Your task to perform on an android device: show emergency info Image 0: 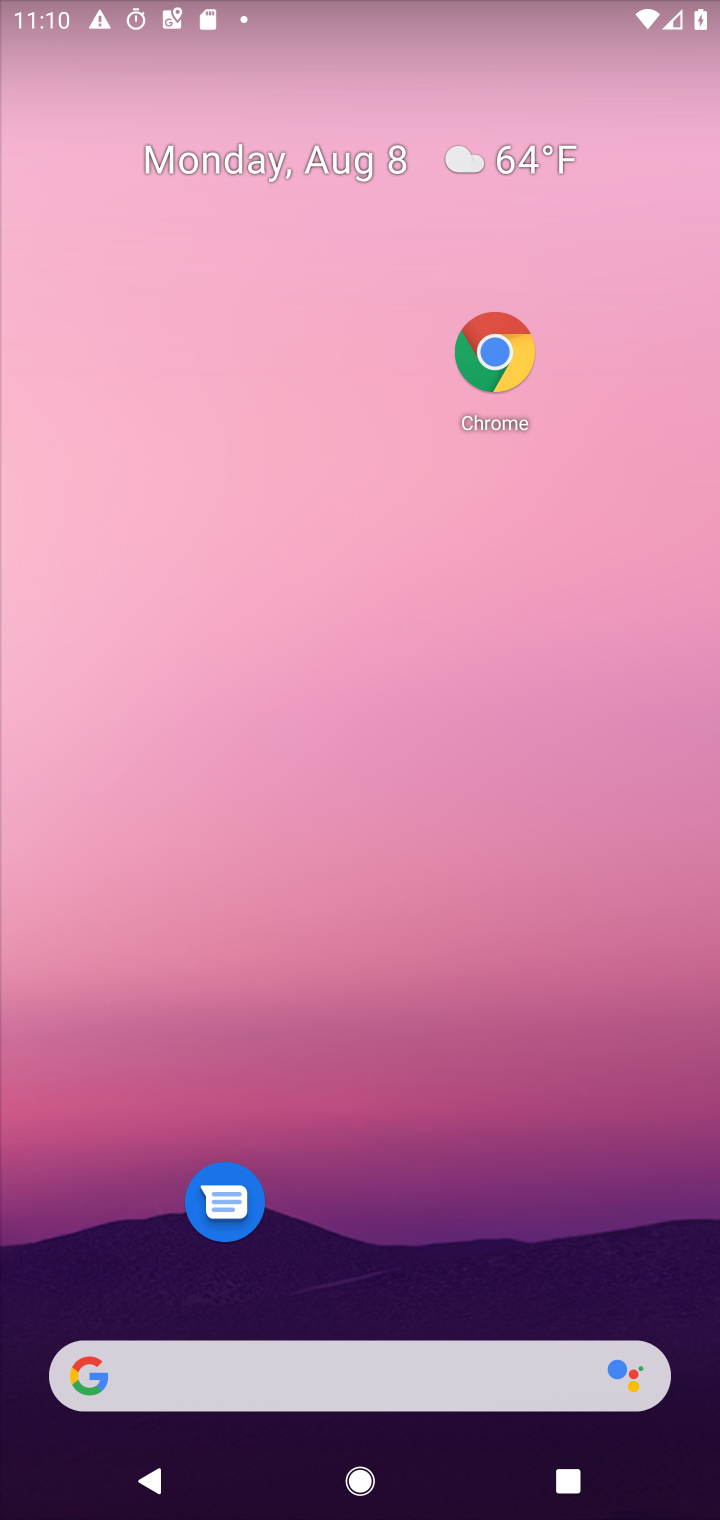
Step 0: drag from (264, 719) to (455, 0)
Your task to perform on an android device: show emergency info Image 1: 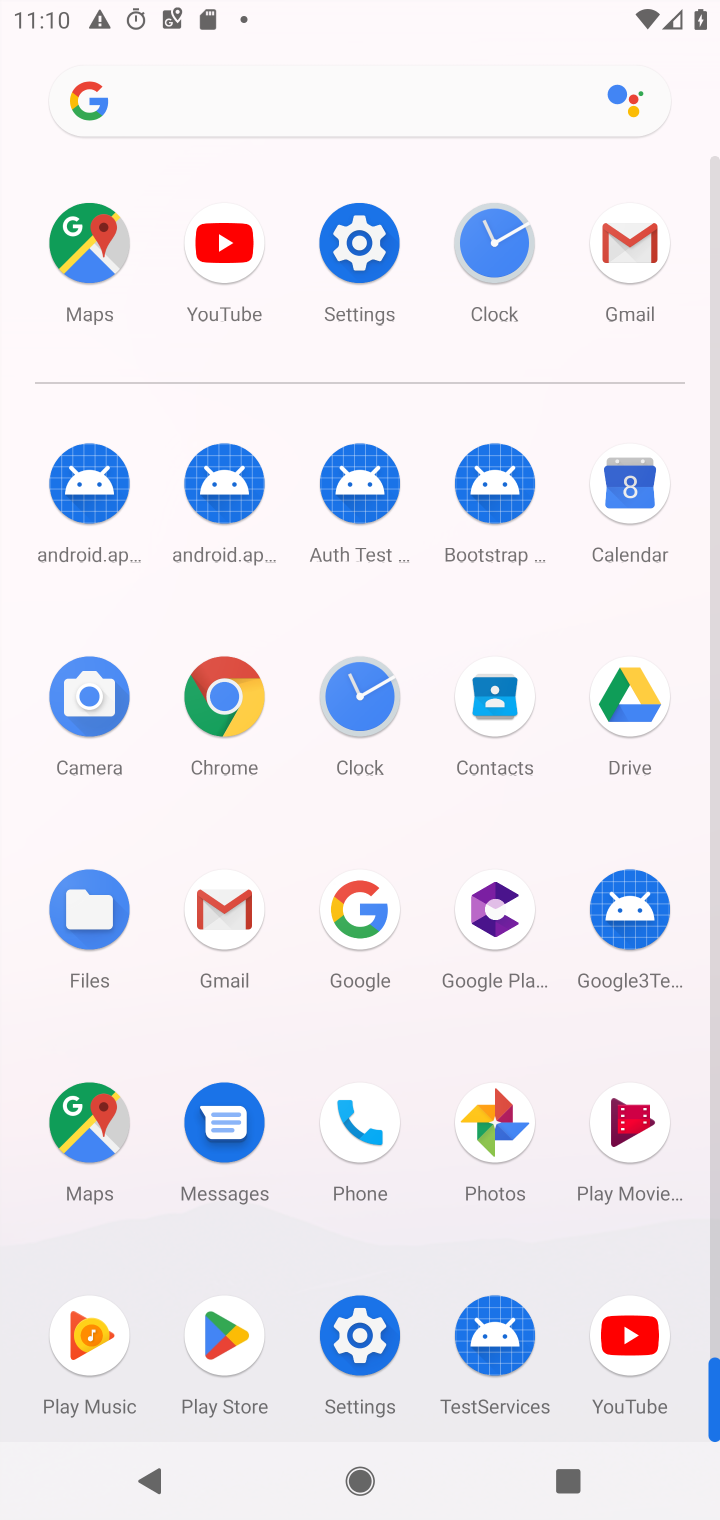
Step 1: click (390, 281)
Your task to perform on an android device: show emergency info Image 2: 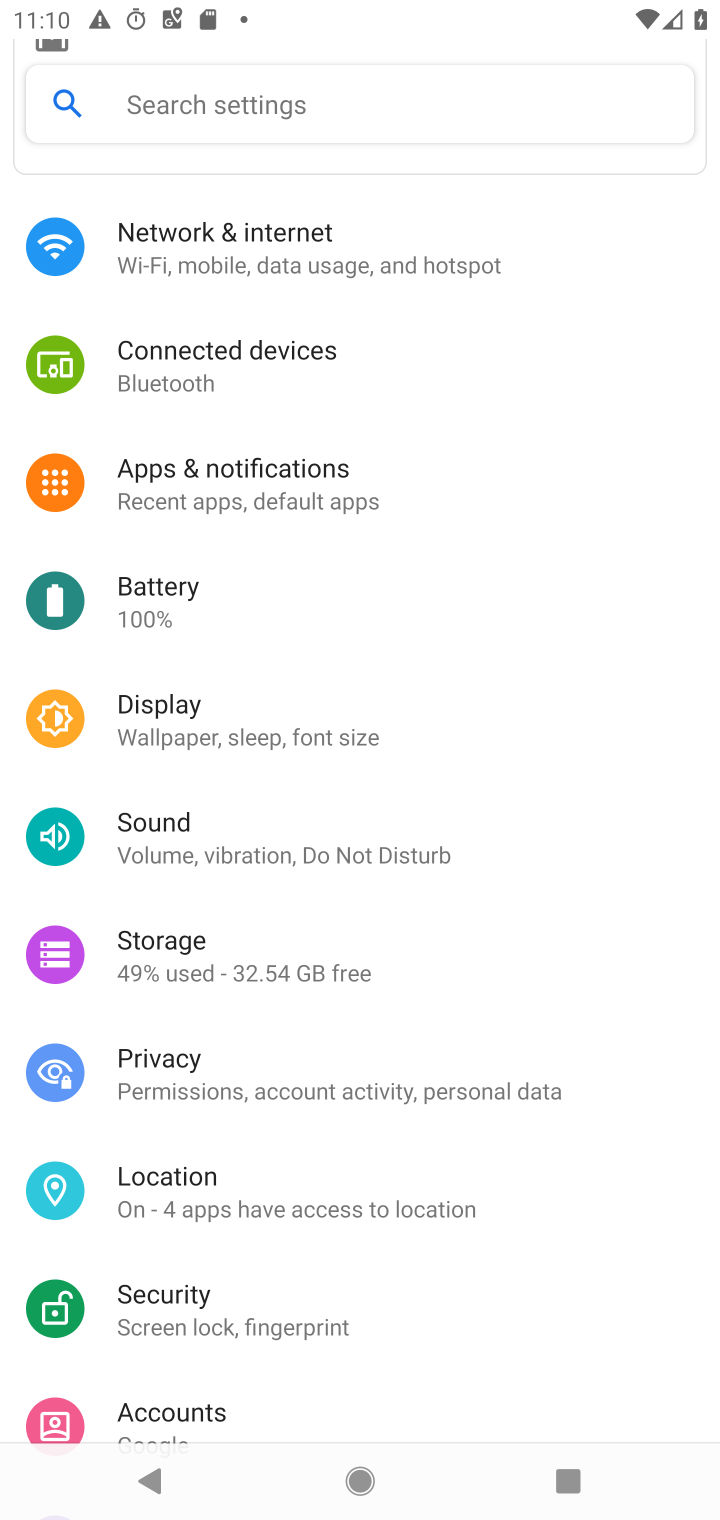
Step 2: drag from (370, 497) to (29, 20)
Your task to perform on an android device: show emergency info Image 3: 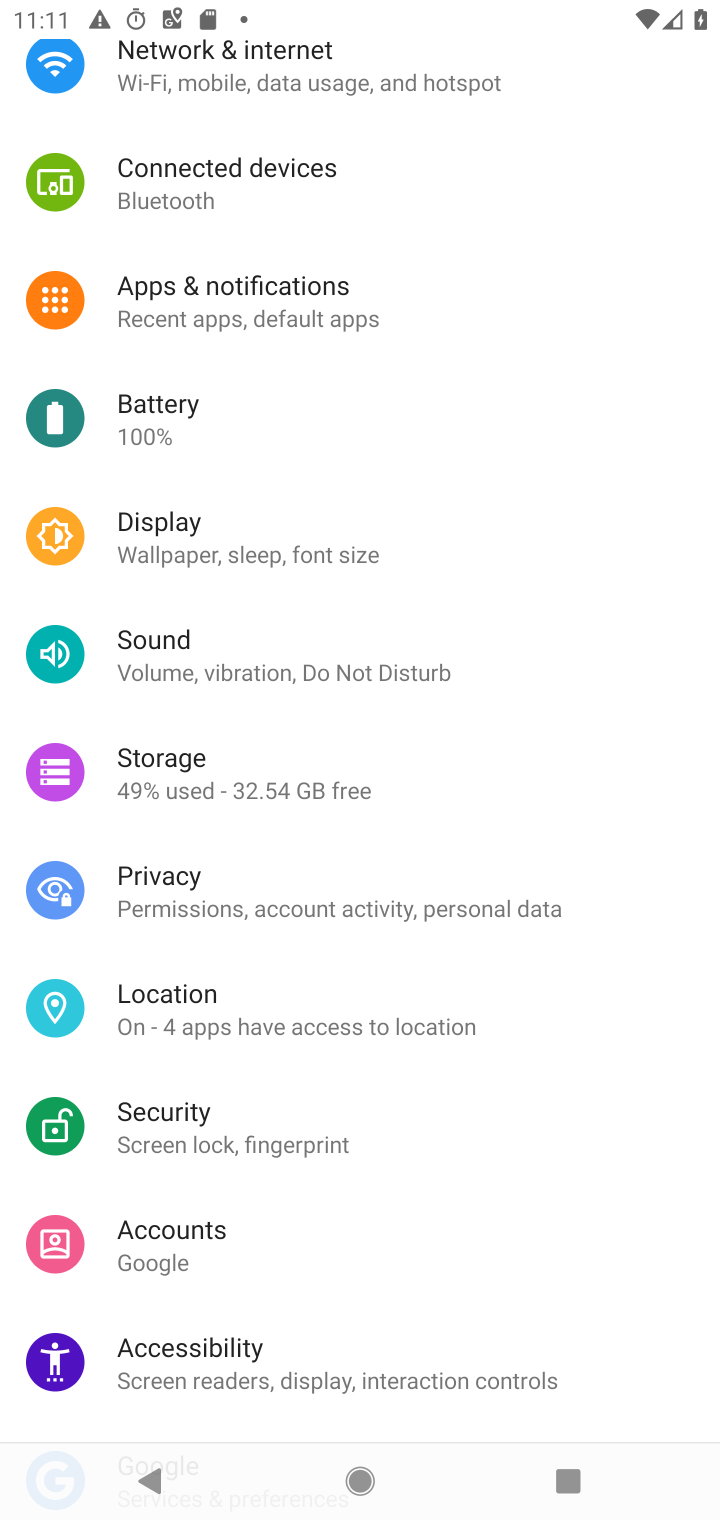
Step 3: drag from (367, 1090) to (185, 81)
Your task to perform on an android device: show emergency info Image 4: 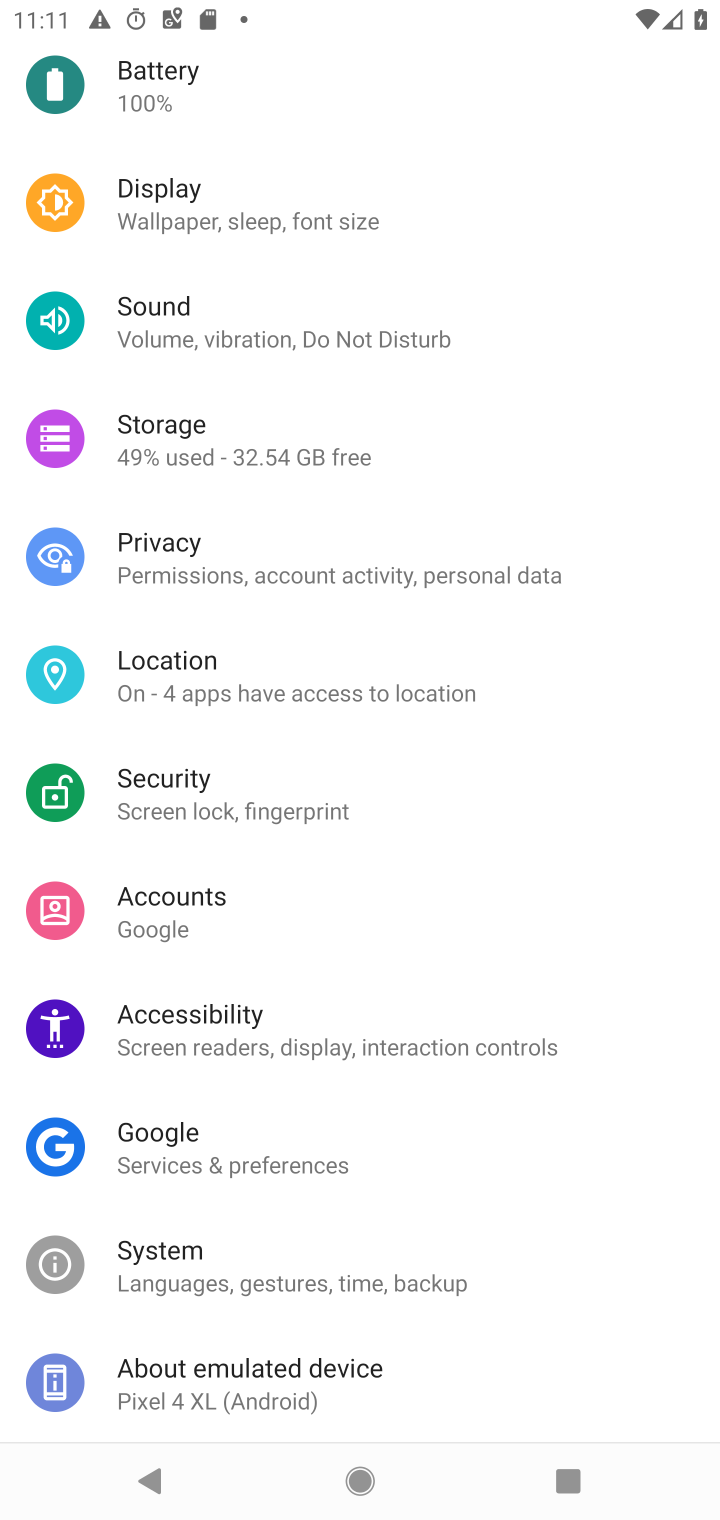
Step 4: drag from (308, 1104) to (217, 151)
Your task to perform on an android device: show emergency info Image 5: 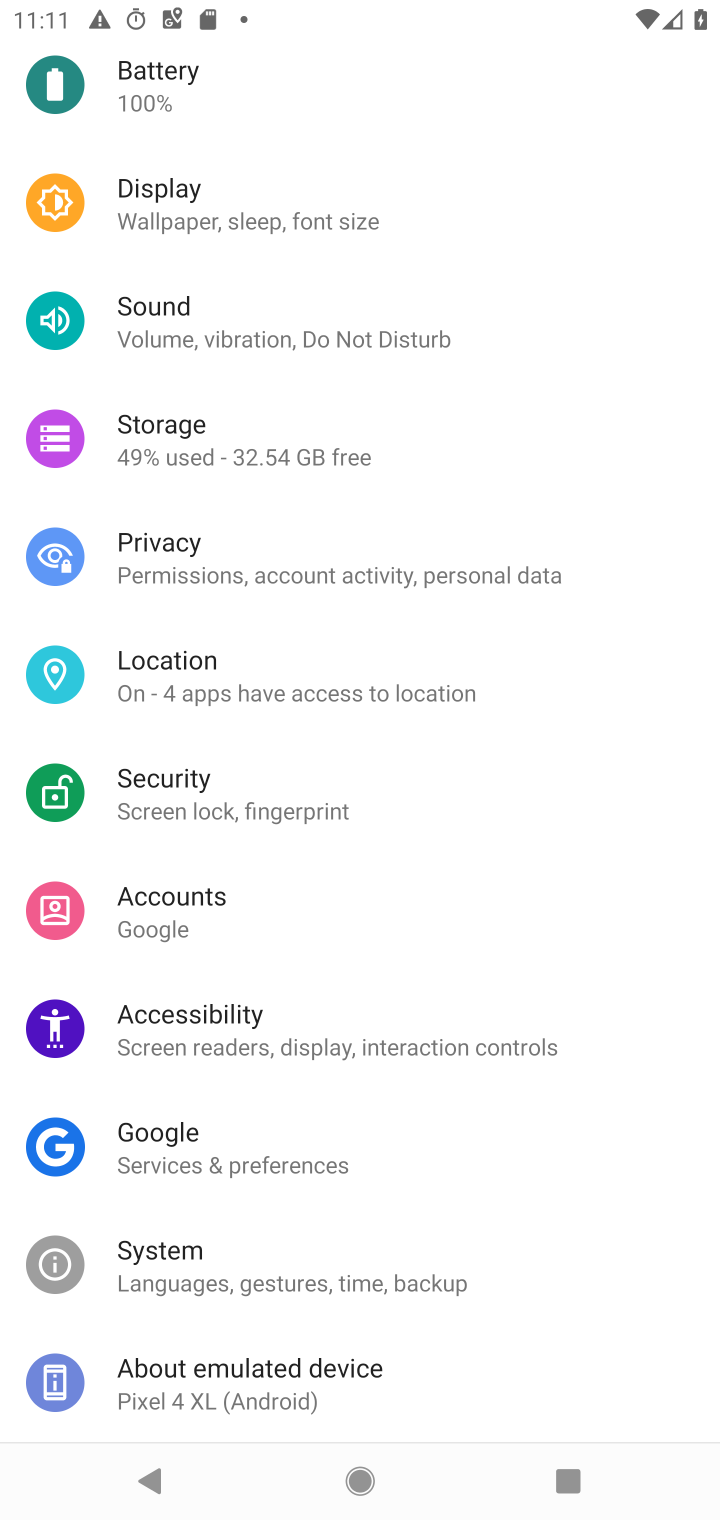
Step 5: click (304, 1352)
Your task to perform on an android device: show emergency info Image 6: 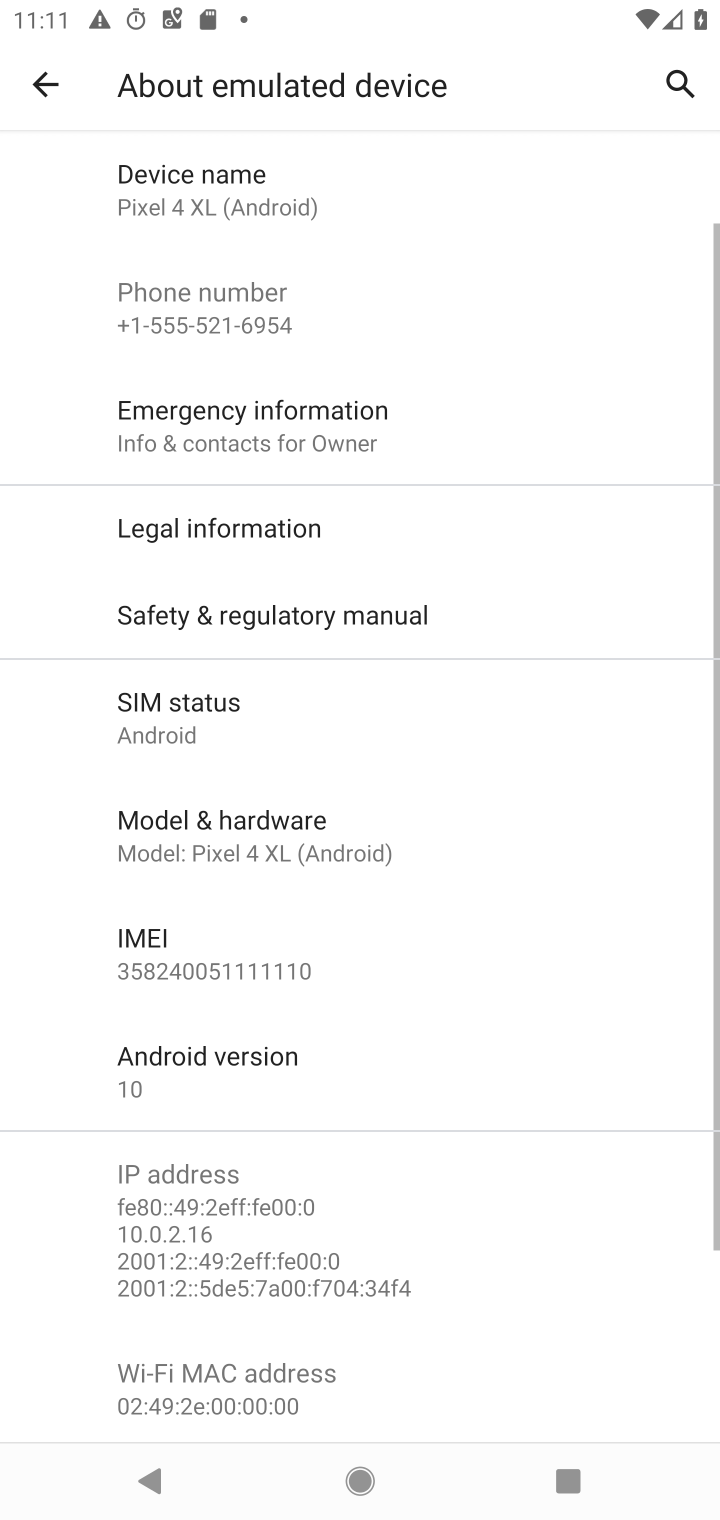
Step 6: click (320, 435)
Your task to perform on an android device: show emergency info Image 7: 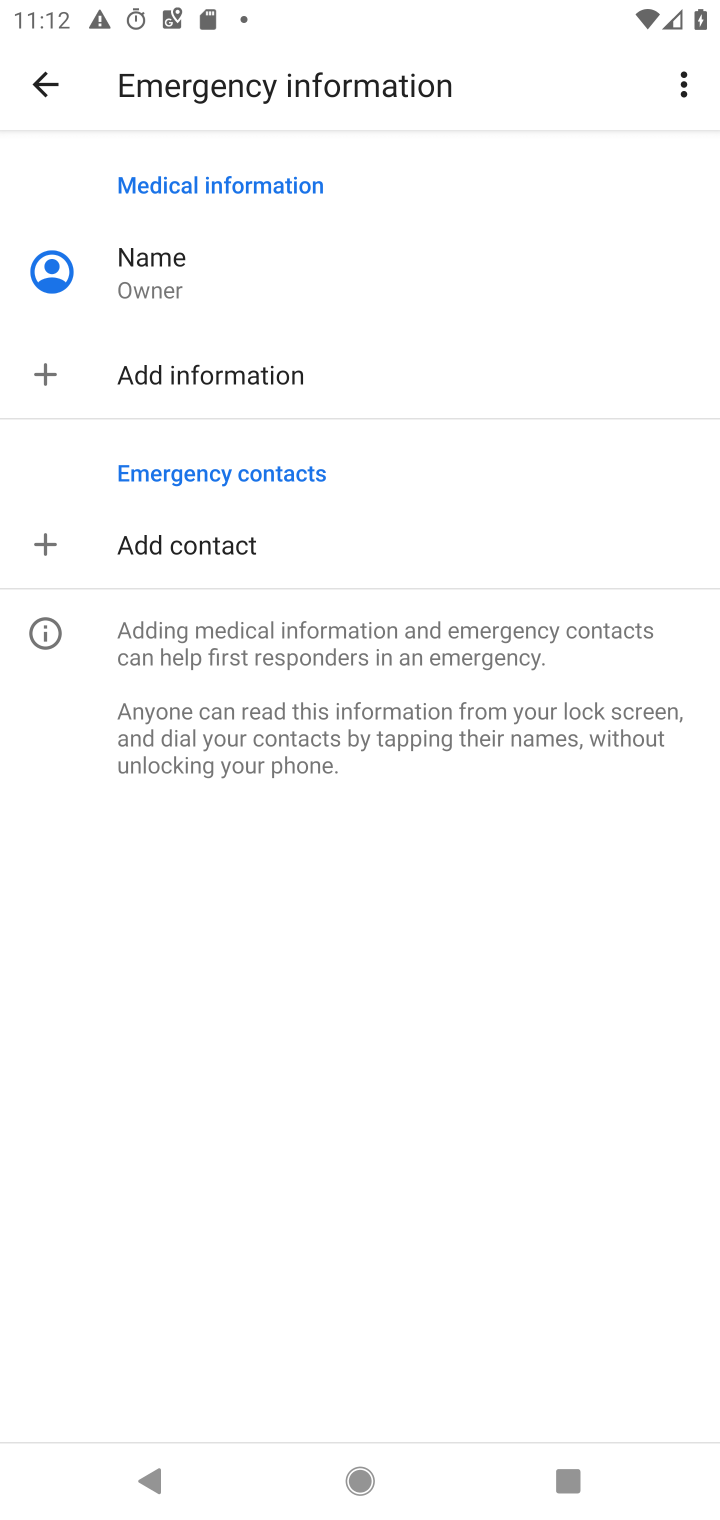
Step 7: task complete